Your task to perform on an android device: find snoozed emails in the gmail app Image 0: 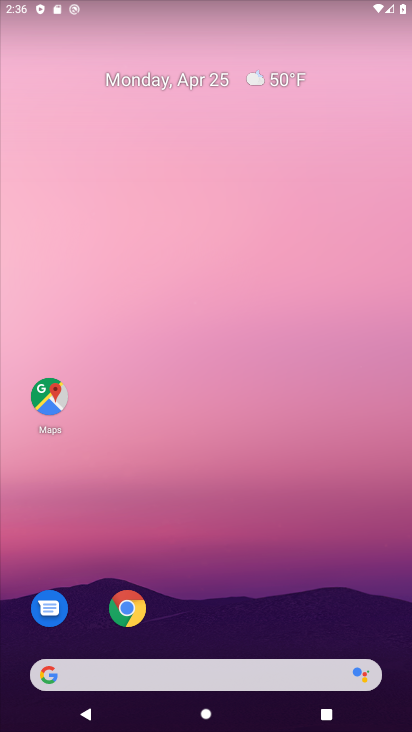
Step 0: drag from (220, 580) to (220, 191)
Your task to perform on an android device: find snoozed emails in the gmail app Image 1: 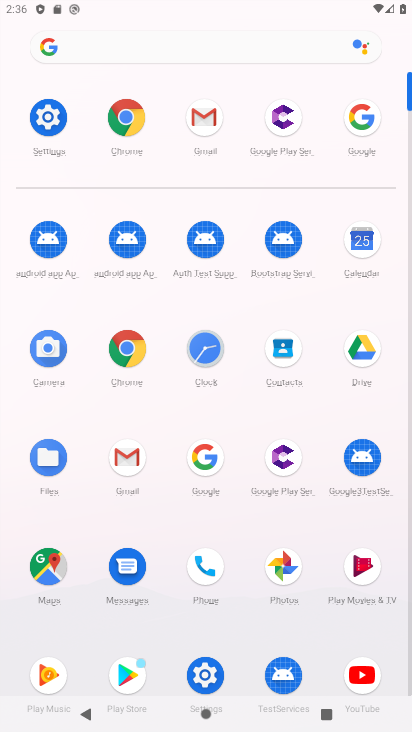
Step 1: click (205, 136)
Your task to perform on an android device: find snoozed emails in the gmail app Image 2: 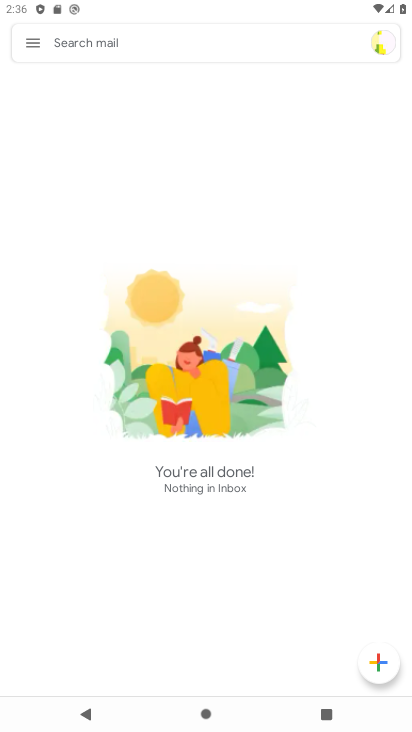
Step 2: click (27, 46)
Your task to perform on an android device: find snoozed emails in the gmail app Image 3: 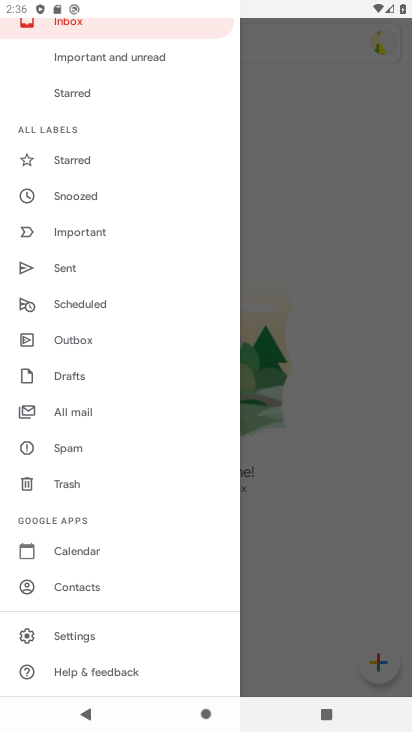
Step 3: click (116, 198)
Your task to perform on an android device: find snoozed emails in the gmail app Image 4: 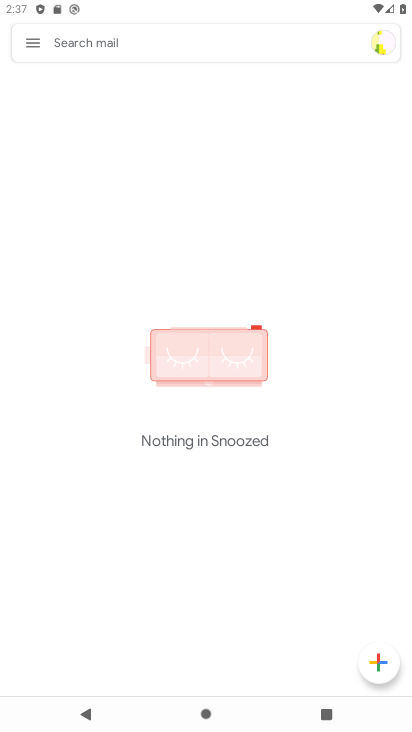
Step 4: task complete